Your task to perform on an android device: Go to notification settings Image 0: 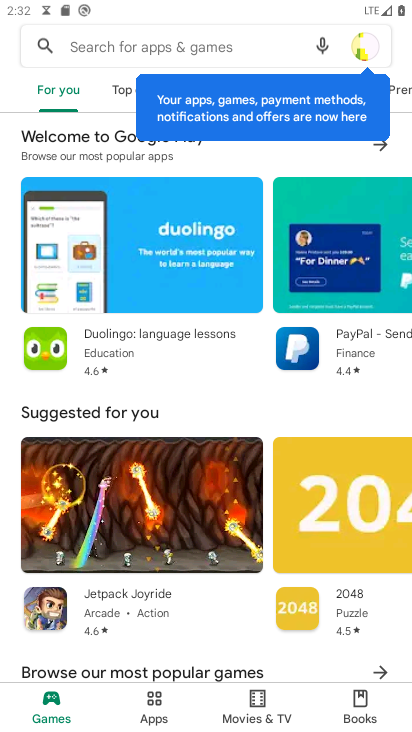
Step 0: press home button
Your task to perform on an android device: Go to notification settings Image 1: 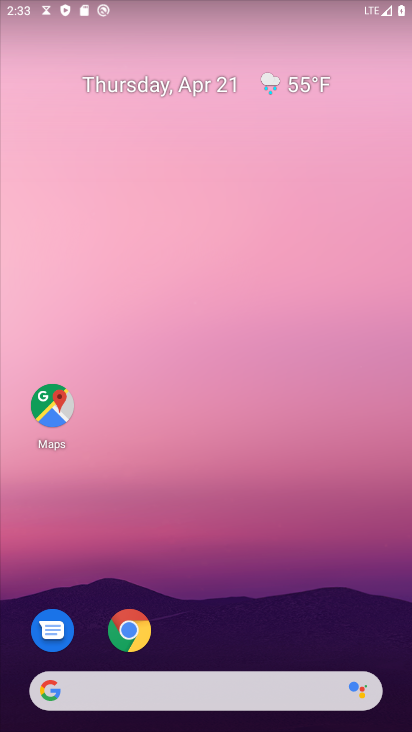
Step 1: drag from (357, 602) to (358, 2)
Your task to perform on an android device: Go to notification settings Image 2: 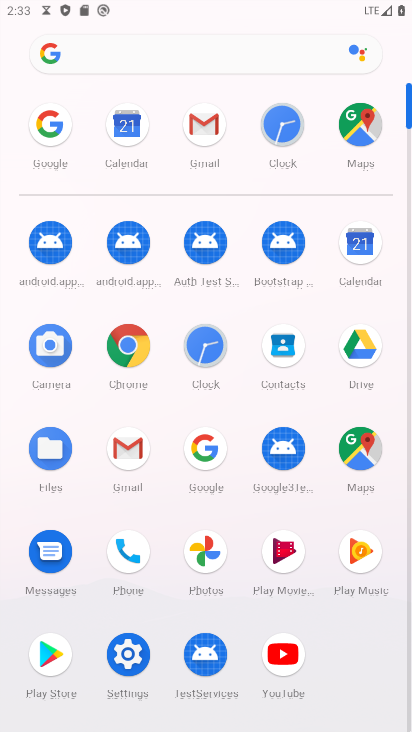
Step 2: click (121, 653)
Your task to perform on an android device: Go to notification settings Image 3: 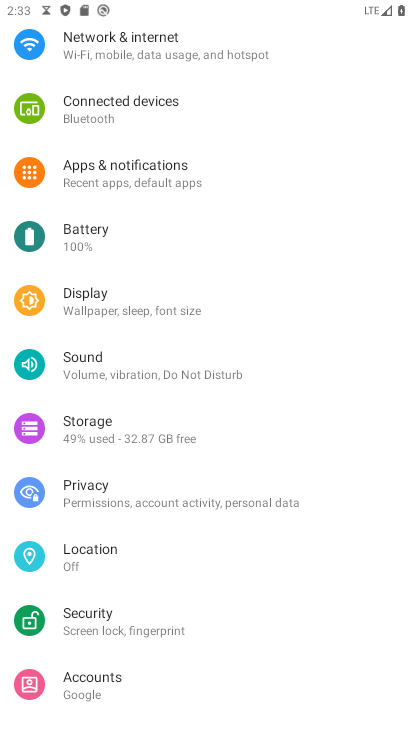
Step 3: click (129, 179)
Your task to perform on an android device: Go to notification settings Image 4: 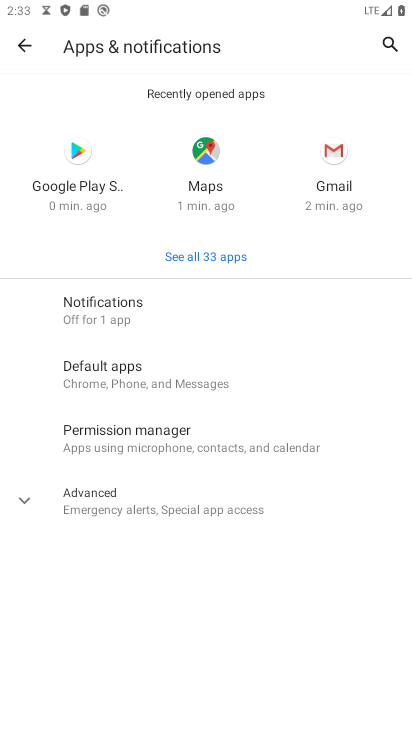
Step 4: click (32, 507)
Your task to perform on an android device: Go to notification settings Image 5: 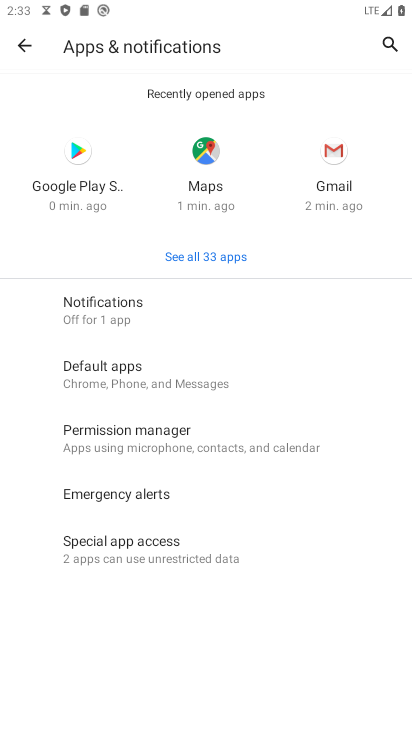
Step 5: task complete